Your task to perform on an android device: Go to Google Image 0: 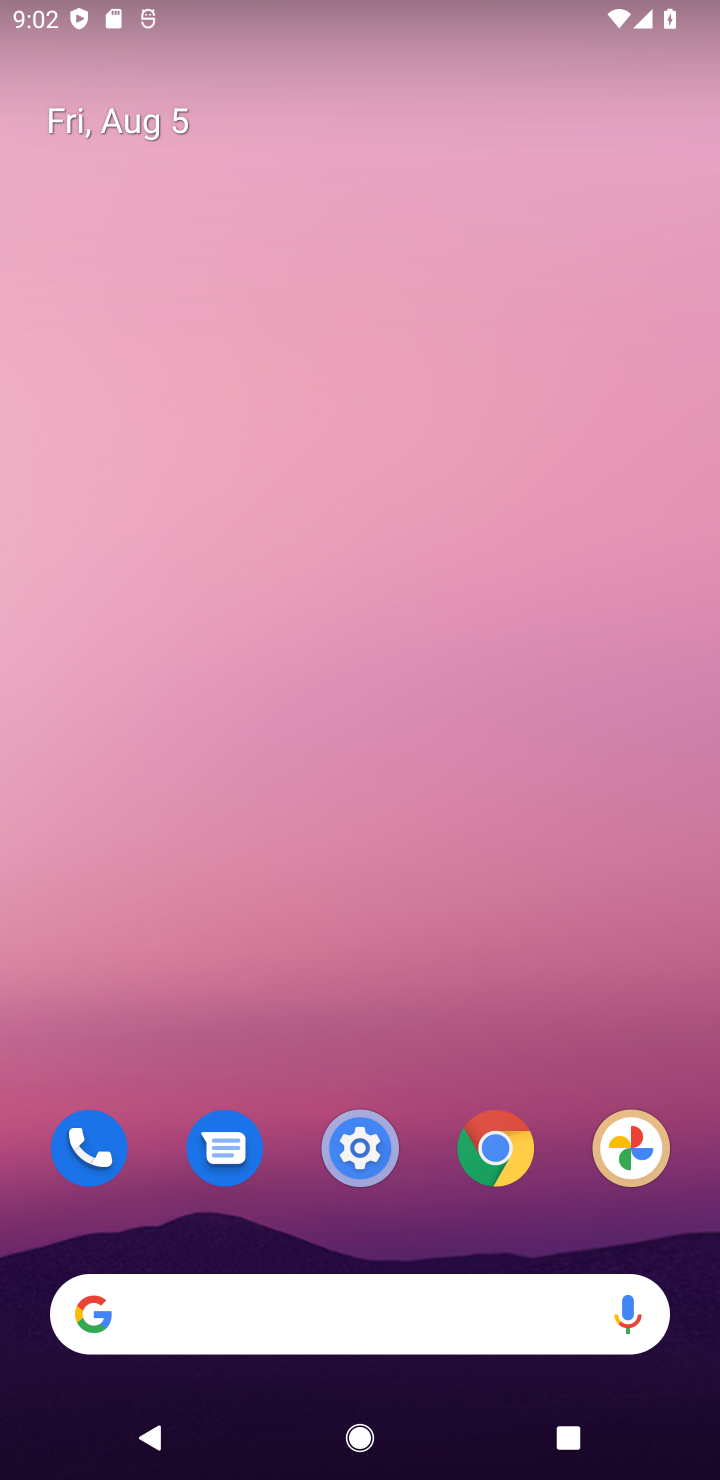
Step 0: click (478, 1145)
Your task to perform on an android device: Go to Google Image 1: 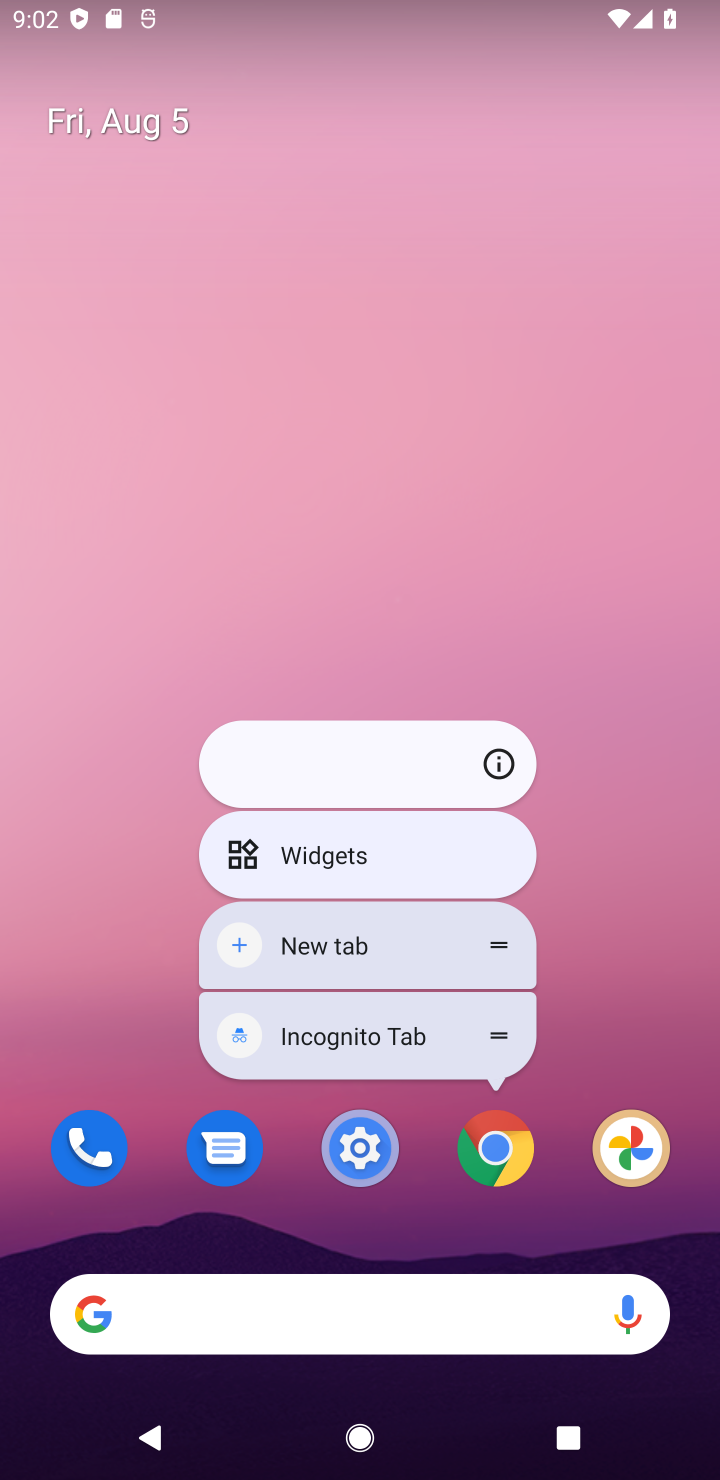
Step 1: click (330, 598)
Your task to perform on an android device: Go to Google Image 2: 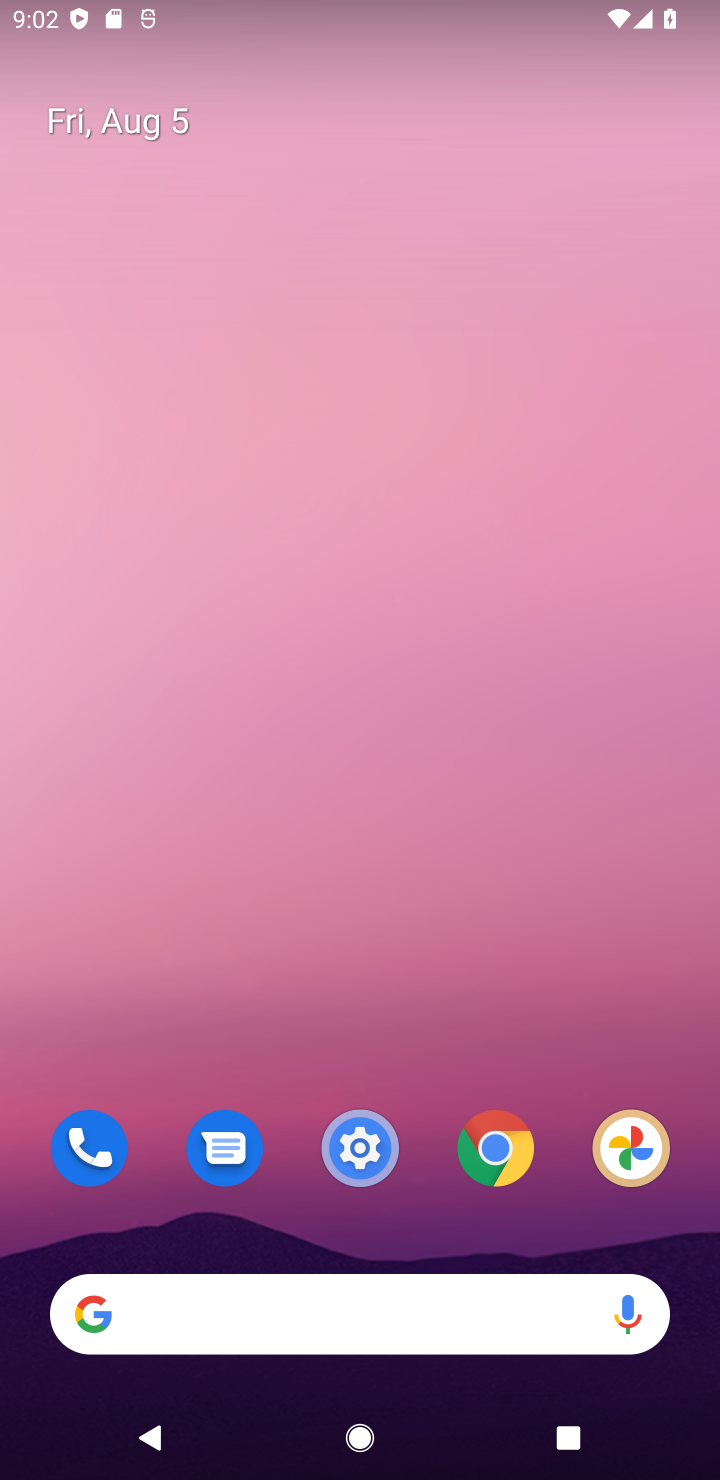
Step 2: click (520, 1174)
Your task to perform on an android device: Go to Google Image 3: 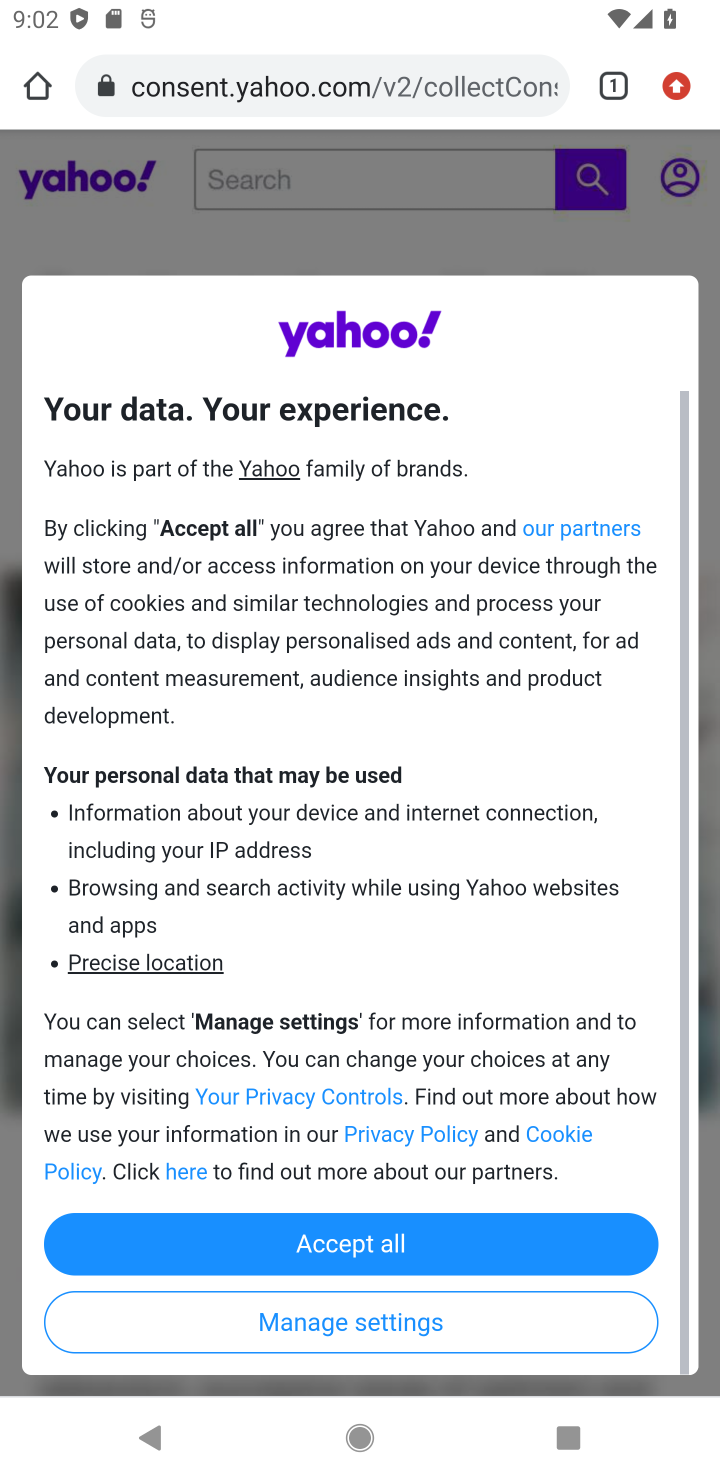
Step 3: click (406, 108)
Your task to perform on an android device: Go to Google Image 4: 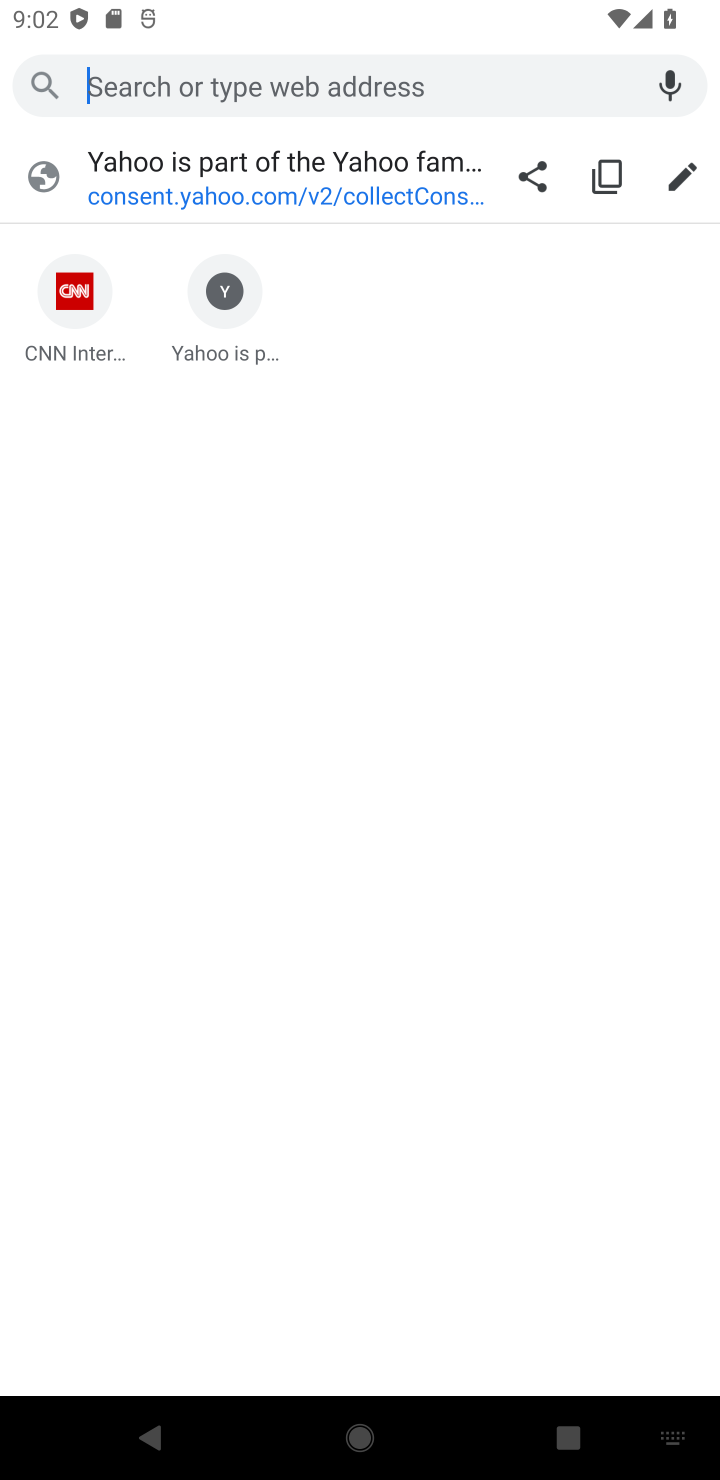
Step 4: type "google.com"
Your task to perform on an android device: Go to Google Image 5: 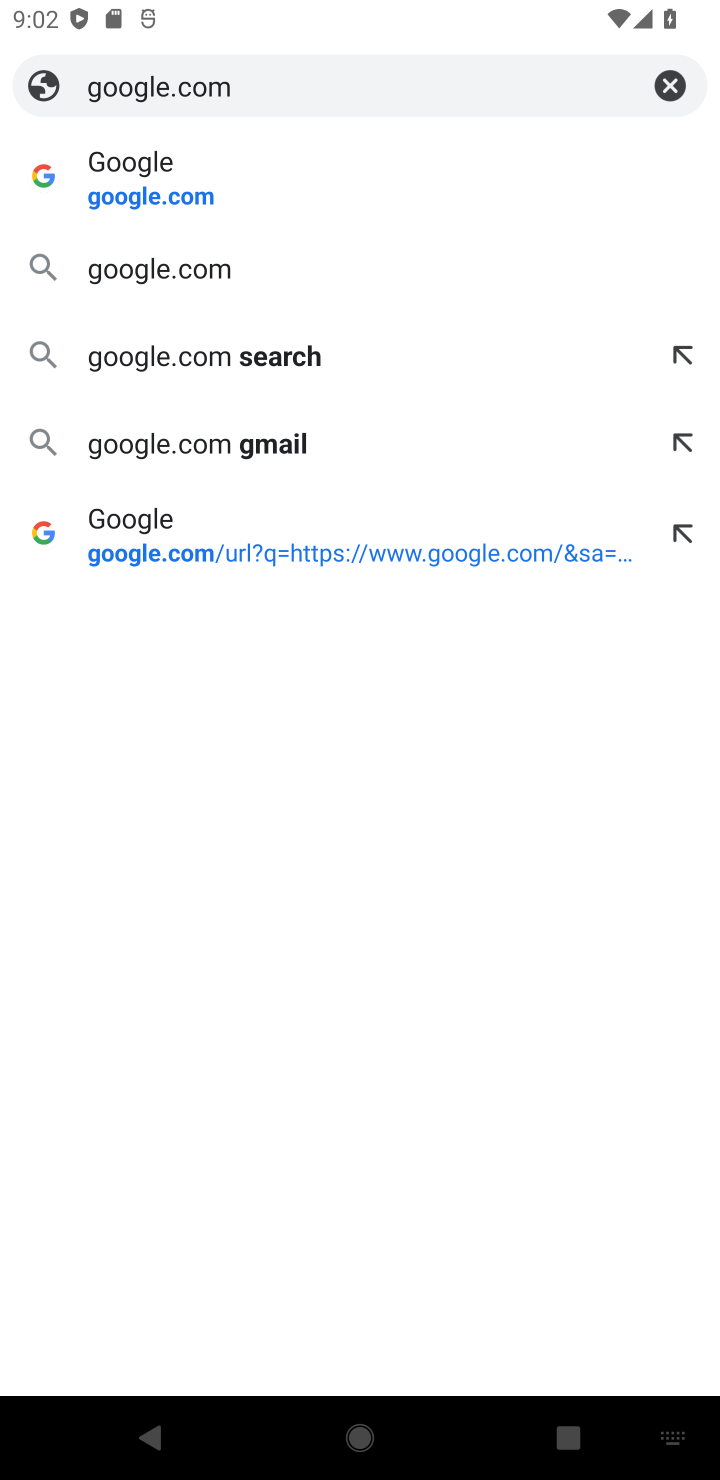
Step 5: click (181, 209)
Your task to perform on an android device: Go to Google Image 6: 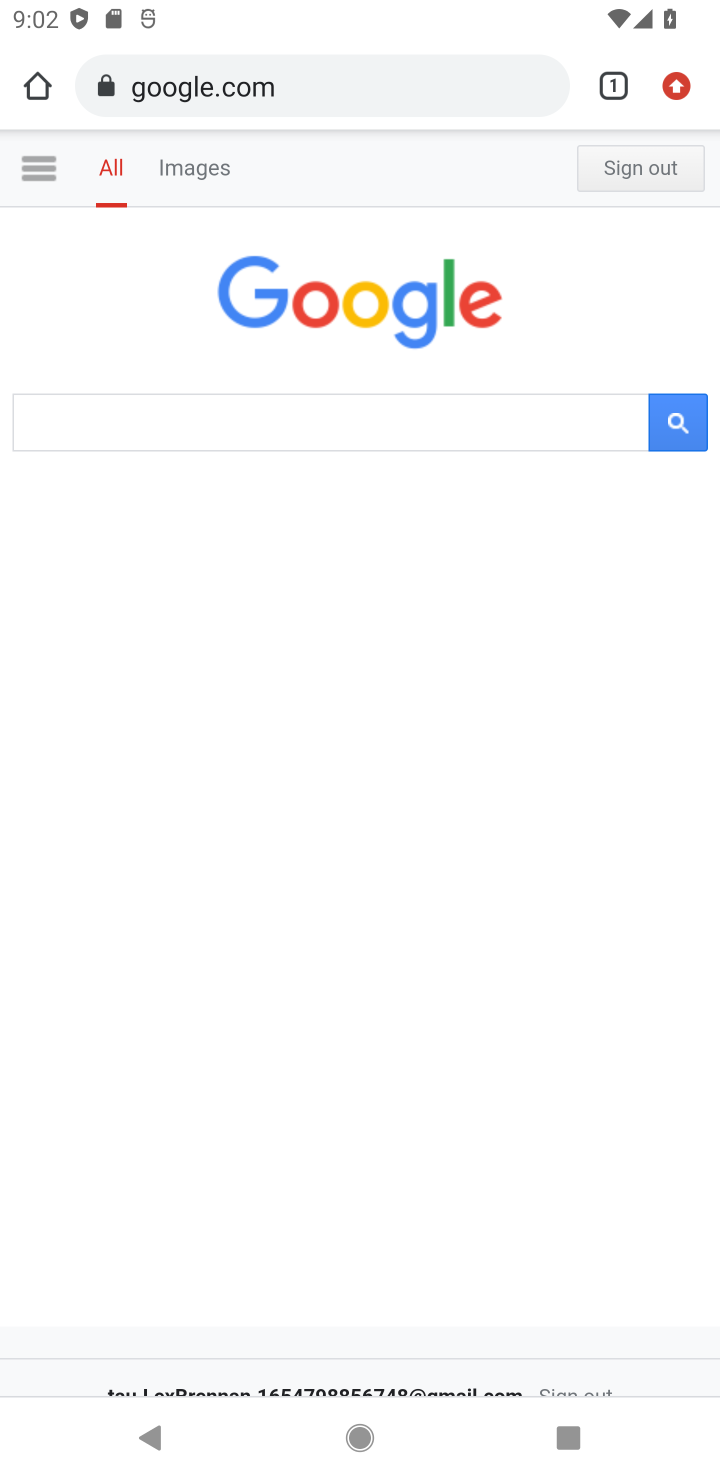
Step 6: task complete